Your task to perform on an android device: Clear all items from cart on bestbuy.com. Add "logitech g pro" to the cart on bestbuy.com Image 0: 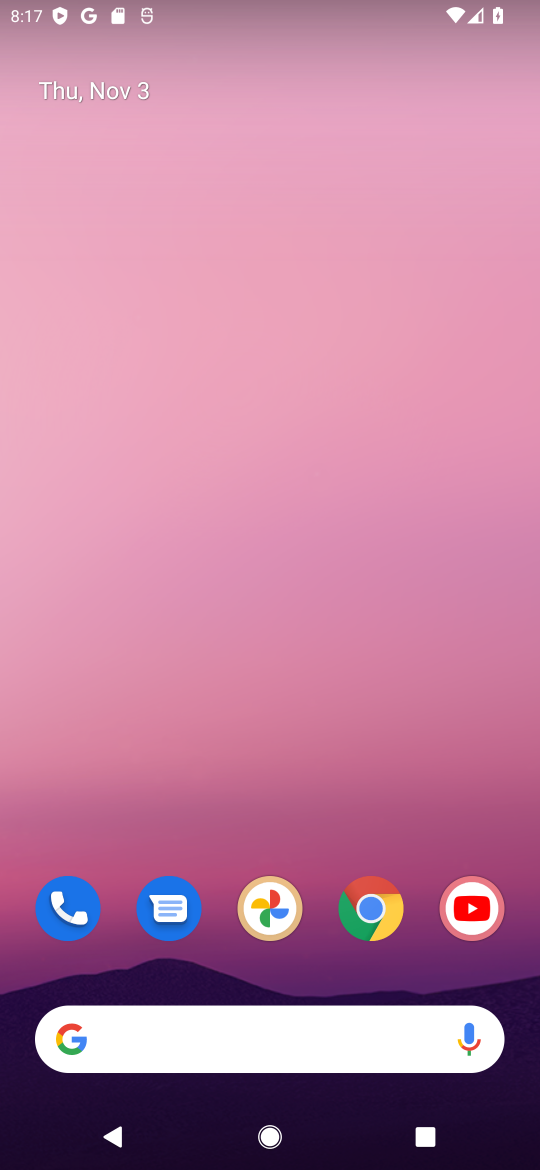
Step 0: click (381, 916)
Your task to perform on an android device: Clear all items from cart on bestbuy.com. Add "logitech g pro" to the cart on bestbuy.com Image 1: 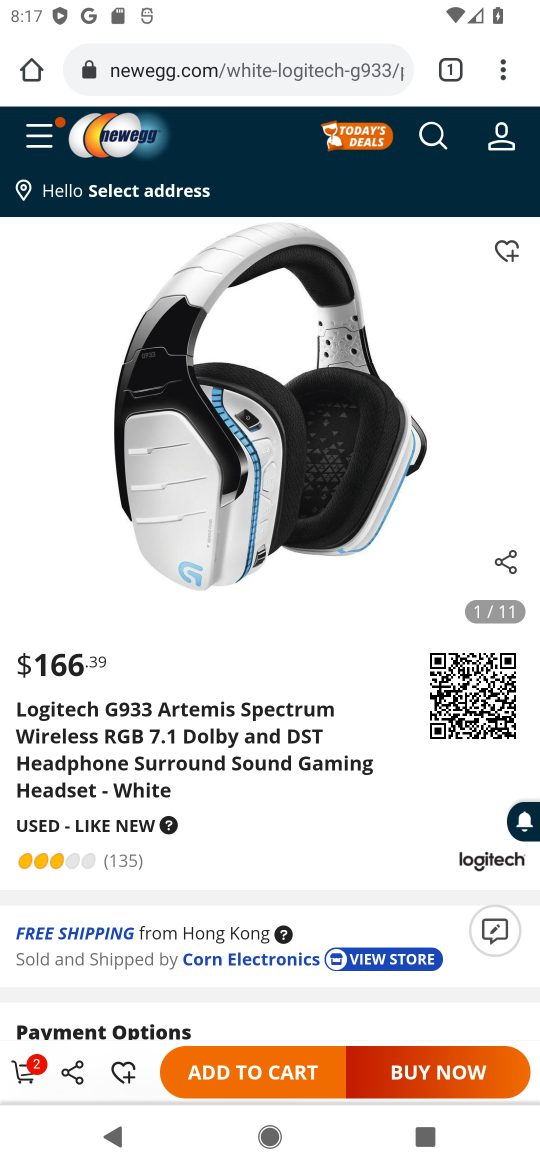
Step 1: click (281, 68)
Your task to perform on an android device: Clear all items from cart on bestbuy.com. Add "logitech g pro" to the cart on bestbuy.com Image 2: 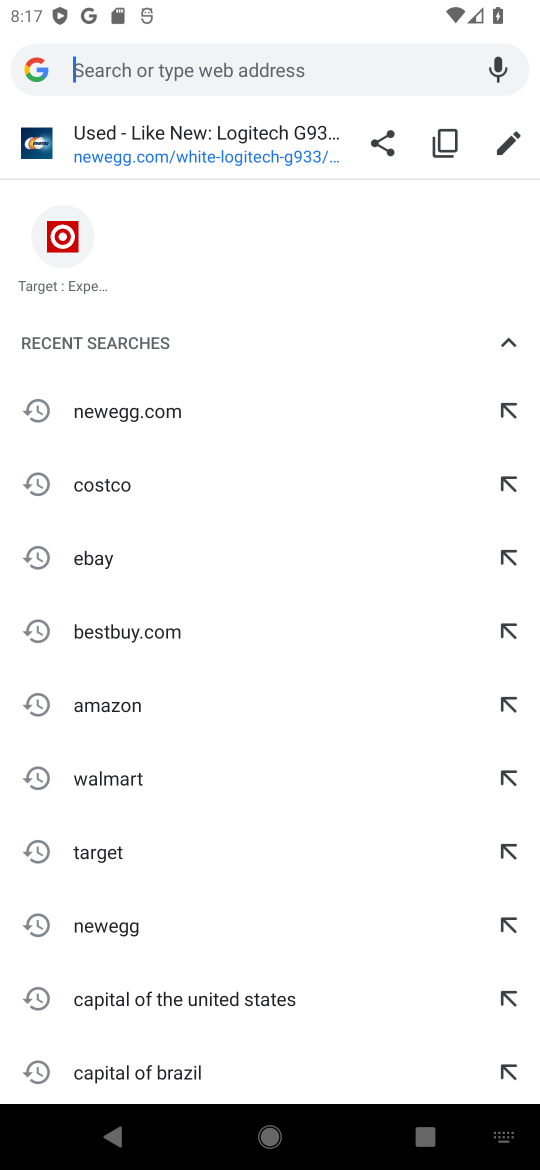
Step 2: click (171, 623)
Your task to perform on an android device: Clear all items from cart on bestbuy.com. Add "logitech g pro" to the cart on bestbuy.com Image 3: 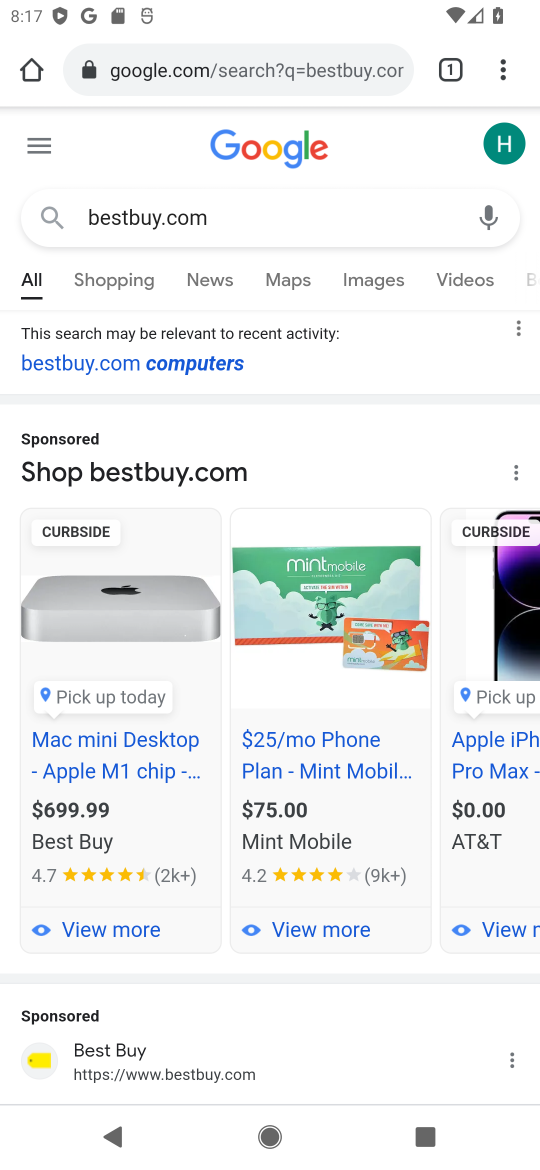
Step 3: drag from (232, 821) to (212, 485)
Your task to perform on an android device: Clear all items from cart on bestbuy.com. Add "logitech g pro" to the cart on bestbuy.com Image 4: 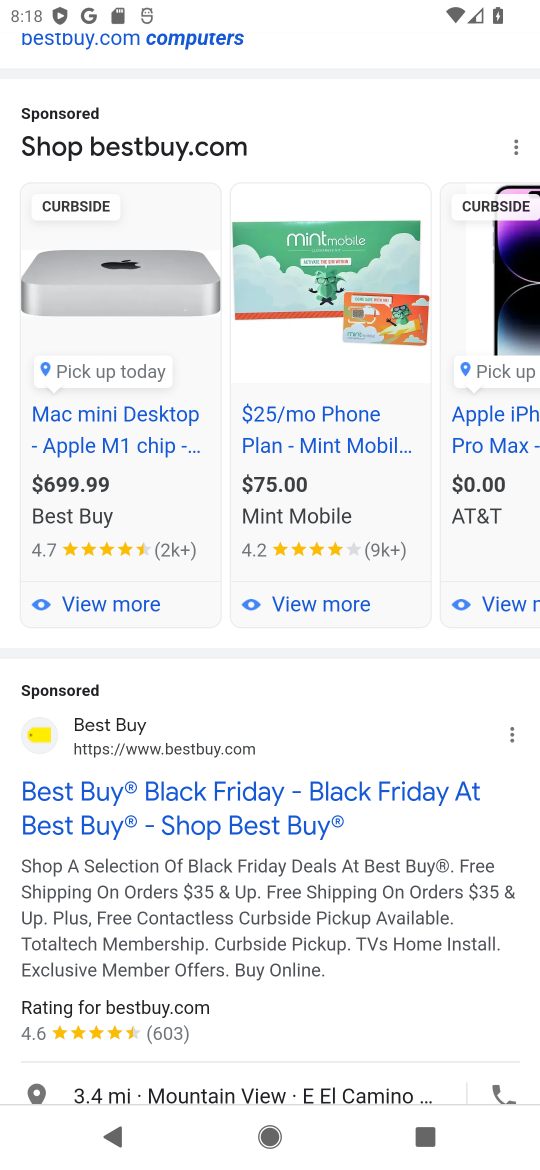
Step 4: click (183, 748)
Your task to perform on an android device: Clear all items from cart on bestbuy.com. Add "logitech g pro" to the cart on bestbuy.com Image 5: 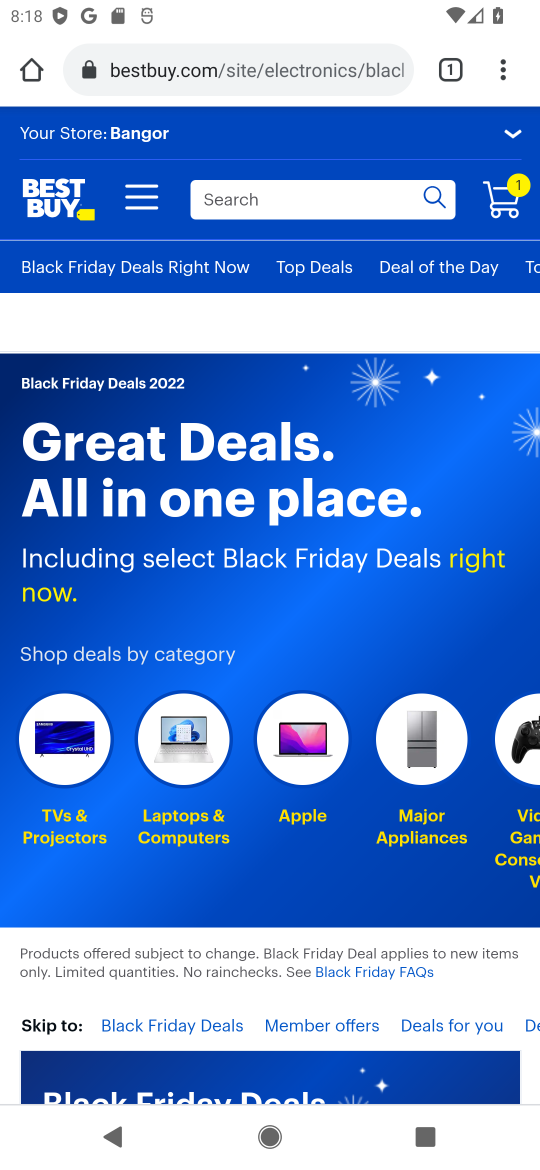
Step 5: click (489, 194)
Your task to perform on an android device: Clear all items from cart on bestbuy.com. Add "logitech g pro" to the cart on bestbuy.com Image 6: 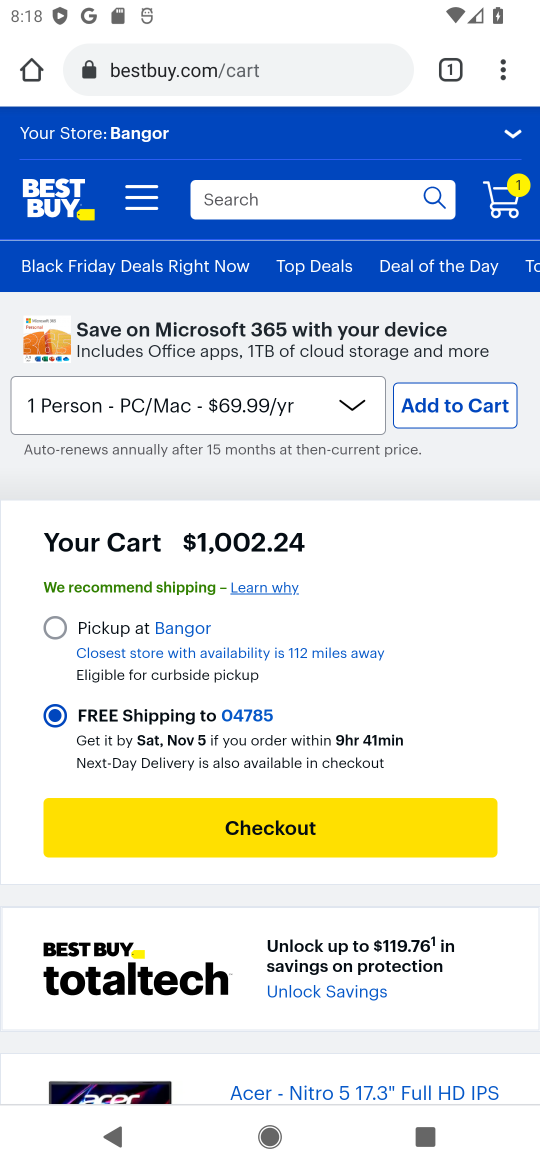
Step 6: drag from (366, 688) to (450, 281)
Your task to perform on an android device: Clear all items from cart on bestbuy.com. Add "logitech g pro" to the cart on bestbuy.com Image 7: 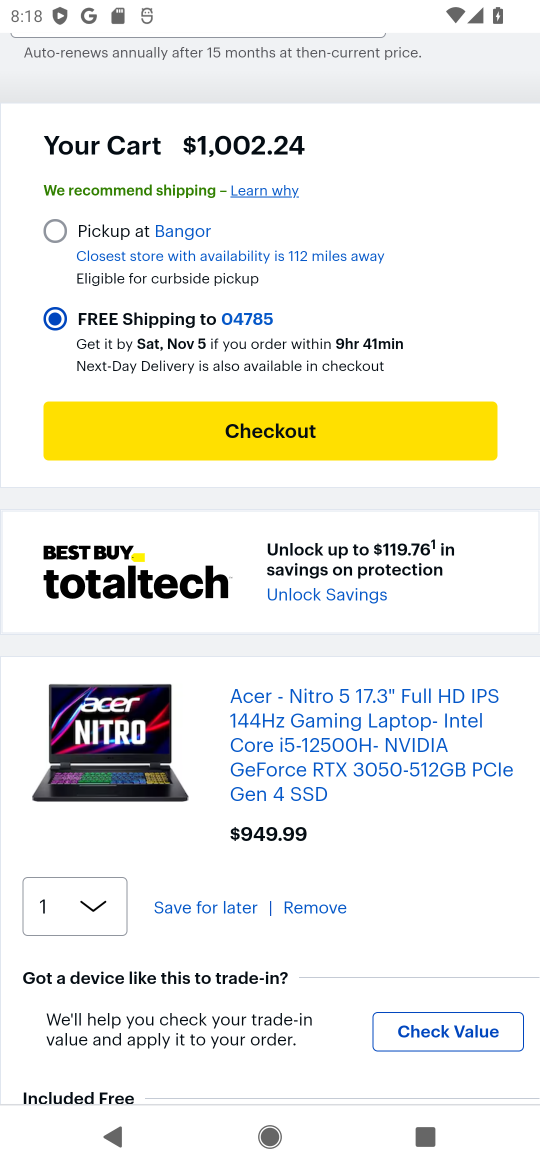
Step 7: click (304, 906)
Your task to perform on an android device: Clear all items from cart on bestbuy.com. Add "logitech g pro" to the cart on bestbuy.com Image 8: 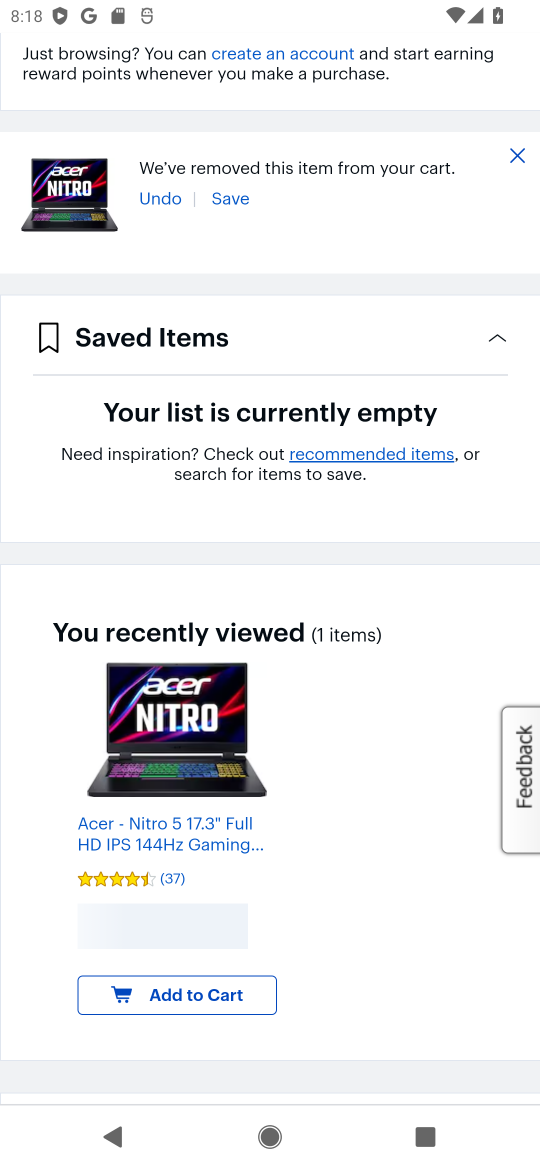
Step 8: drag from (332, 260) to (319, 672)
Your task to perform on an android device: Clear all items from cart on bestbuy.com. Add "logitech g pro" to the cart on bestbuy.com Image 9: 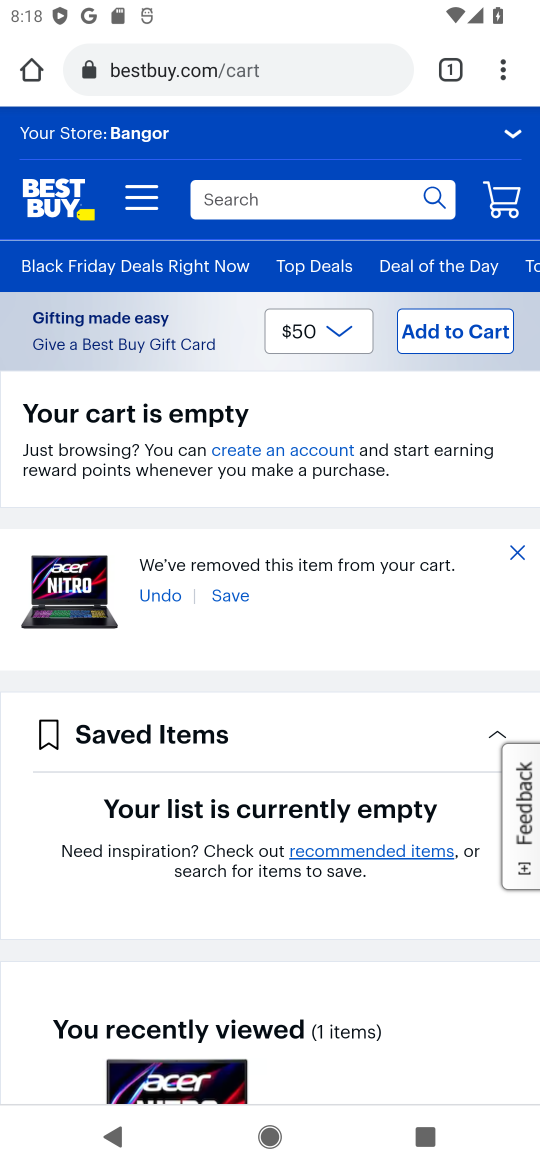
Step 9: click (340, 206)
Your task to perform on an android device: Clear all items from cart on bestbuy.com. Add "logitech g pro" to the cart on bestbuy.com Image 10: 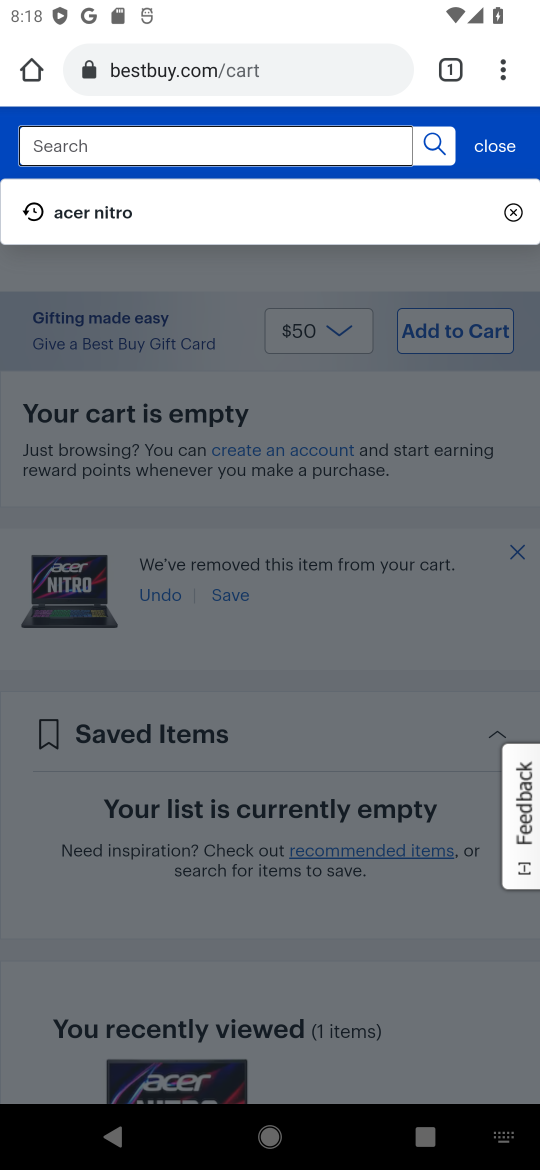
Step 10: click (282, 147)
Your task to perform on an android device: Clear all items from cart on bestbuy.com. Add "logitech g pro" to the cart on bestbuy.com Image 11: 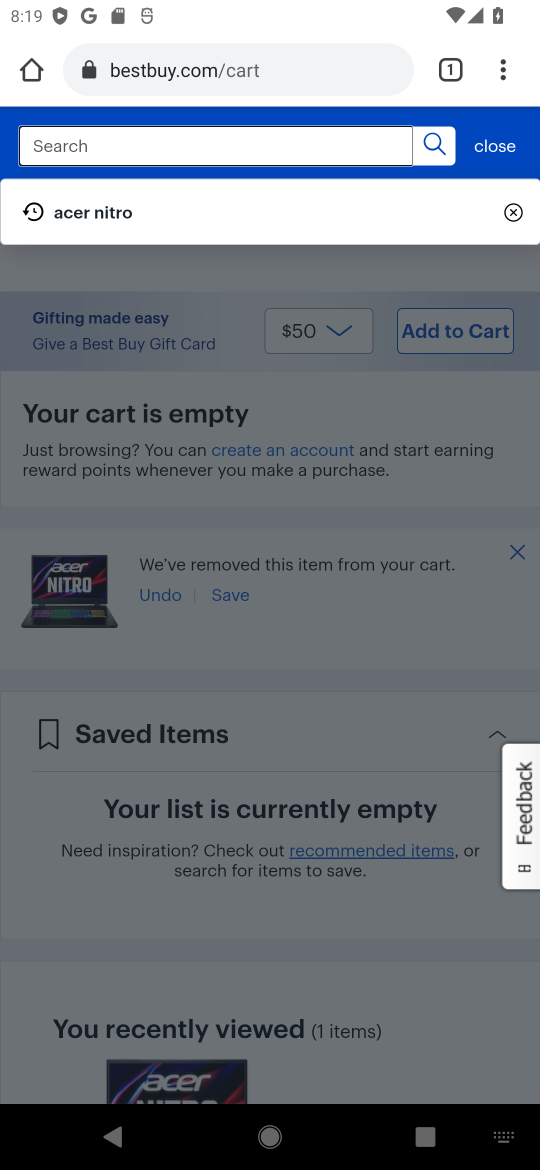
Step 11: type "logitech g pro"
Your task to perform on an android device: Clear all items from cart on bestbuy.com. Add "logitech g pro" to the cart on bestbuy.com Image 12: 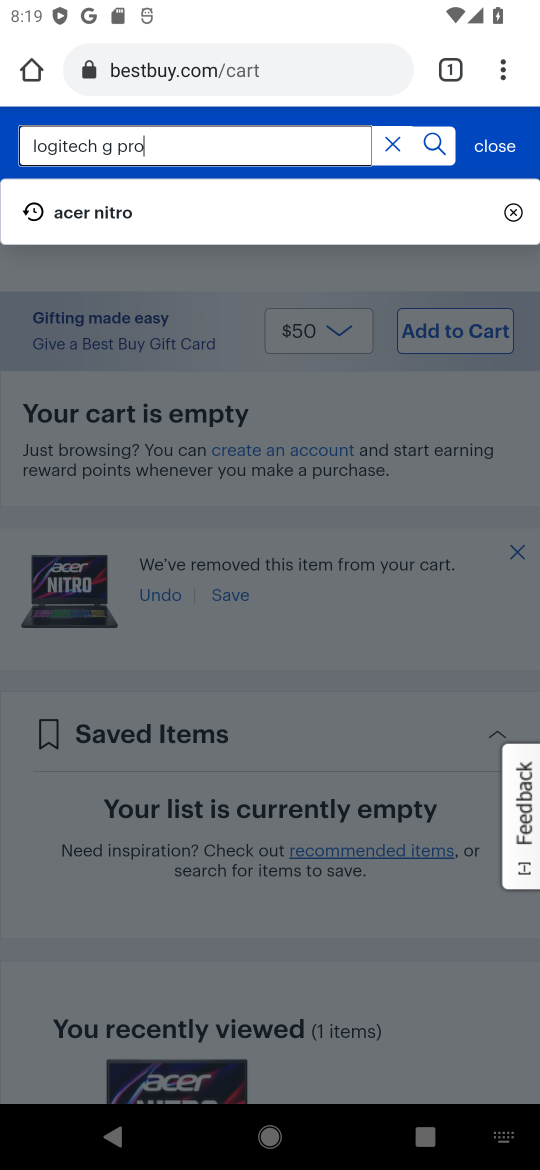
Step 12: press enter
Your task to perform on an android device: Clear all items from cart on bestbuy.com. Add "logitech g pro" to the cart on bestbuy.com Image 13: 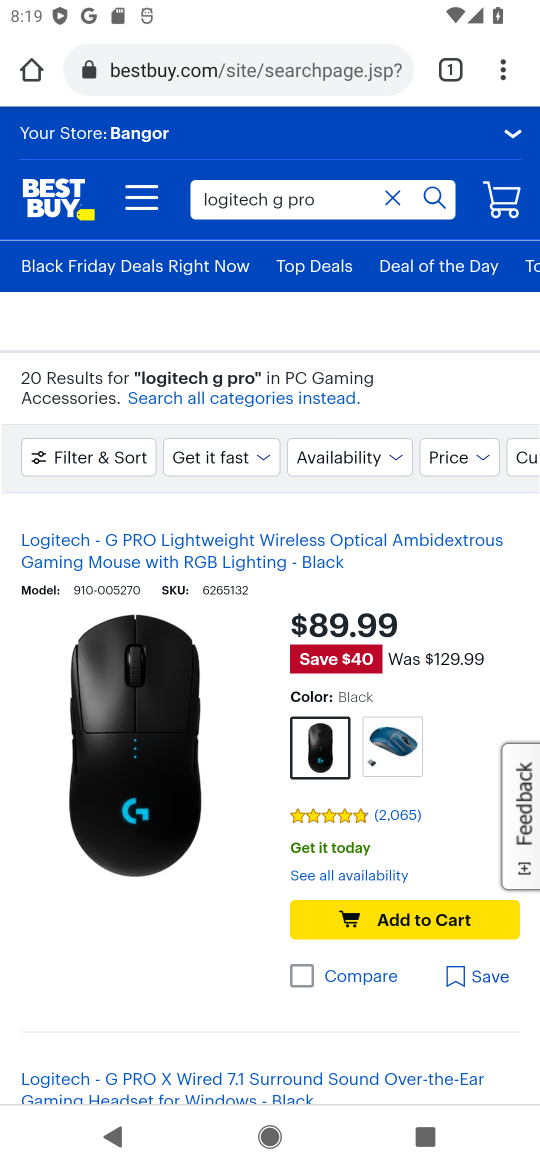
Step 13: click (193, 834)
Your task to perform on an android device: Clear all items from cart on bestbuy.com. Add "logitech g pro" to the cart on bestbuy.com Image 14: 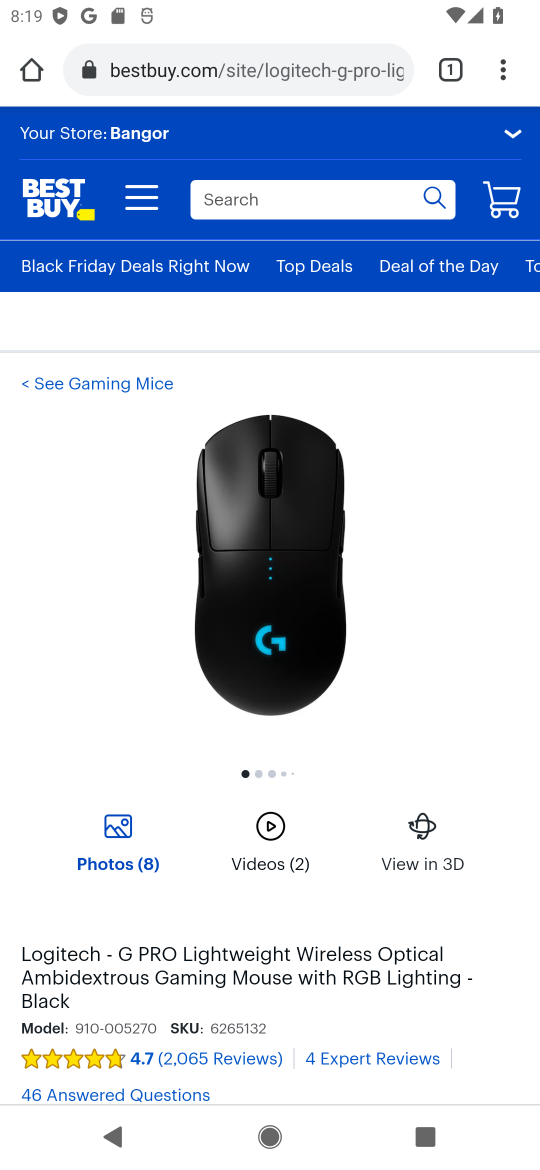
Step 14: drag from (354, 875) to (316, 263)
Your task to perform on an android device: Clear all items from cart on bestbuy.com. Add "logitech g pro" to the cart on bestbuy.com Image 15: 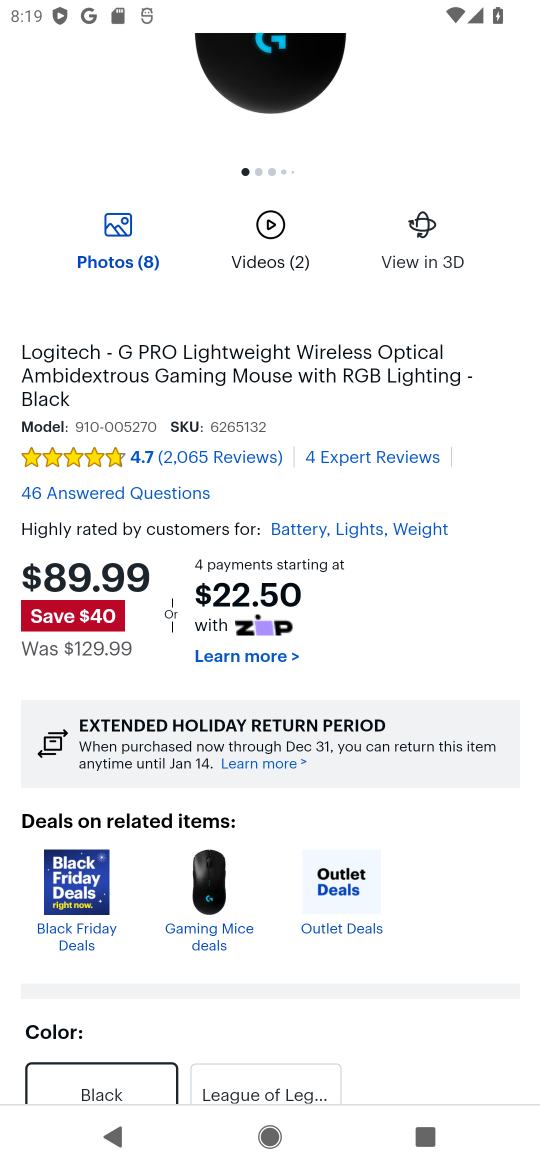
Step 15: drag from (454, 852) to (411, 328)
Your task to perform on an android device: Clear all items from cart on bestbuy.com. Add "logitech g pro" to the cart on bestbuy.com Image 16: 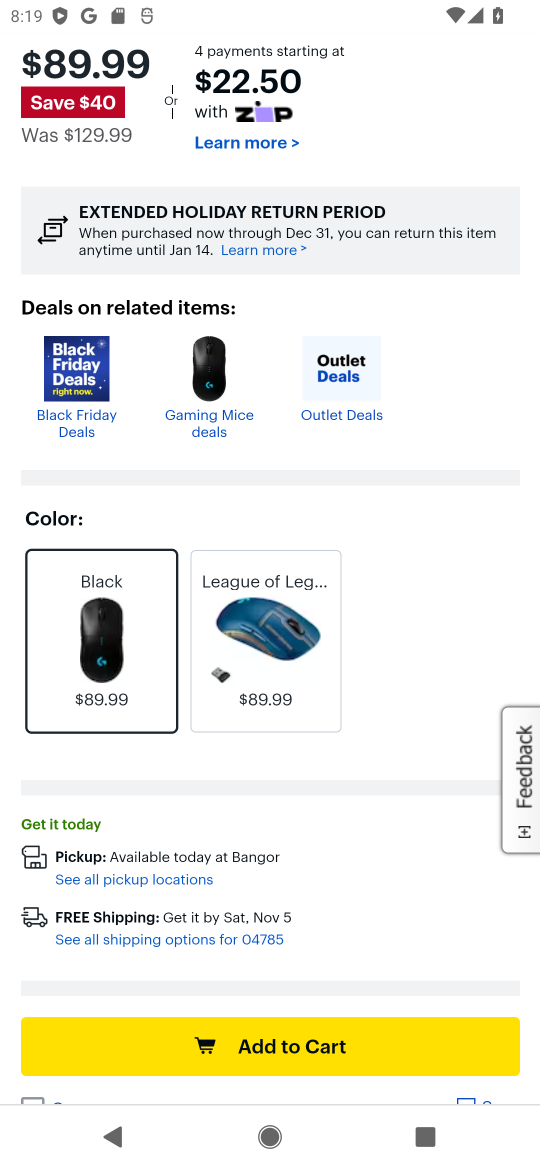
Step 16: drag from (468, 940) to (425, 592)
Your task to perform on an android device: Clear all items from cart on bestbuy.com. Add "logitech g pro" to the cart on bestbuy.com Image 17: 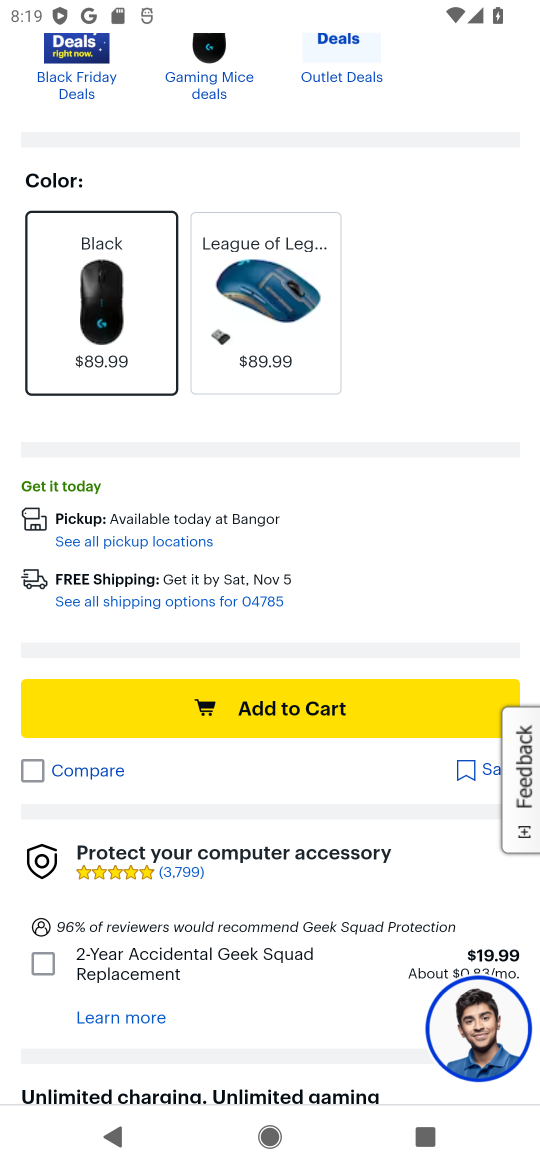
Step 17: click (326, 706)
Your task to perform on an android device: Clear all items from cart on bestbuy.com. Add "logitech g pro" to the cart on bestbuy.com Image 18: 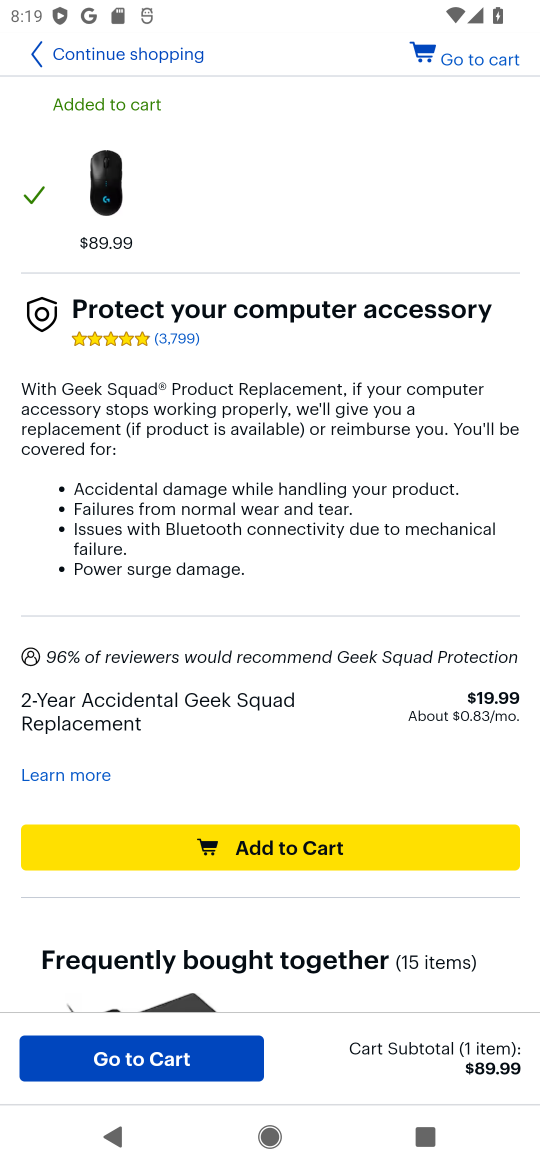
Step 18: task complete